Your task to perform on an android device: Open eBay Image 0: 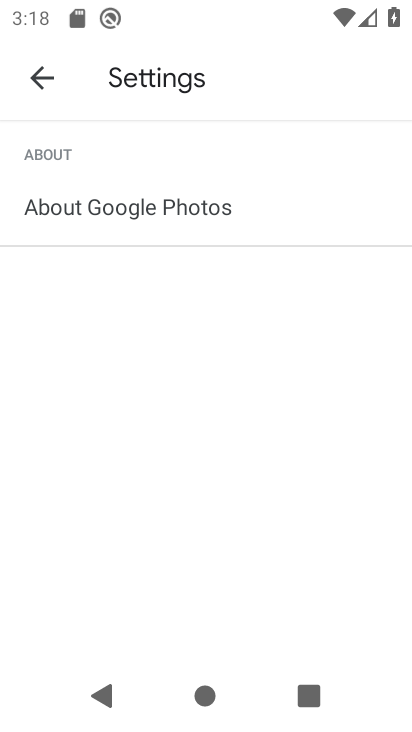
Step 0: press home button
Your task to perform on an android device: Open eBay Image 1: 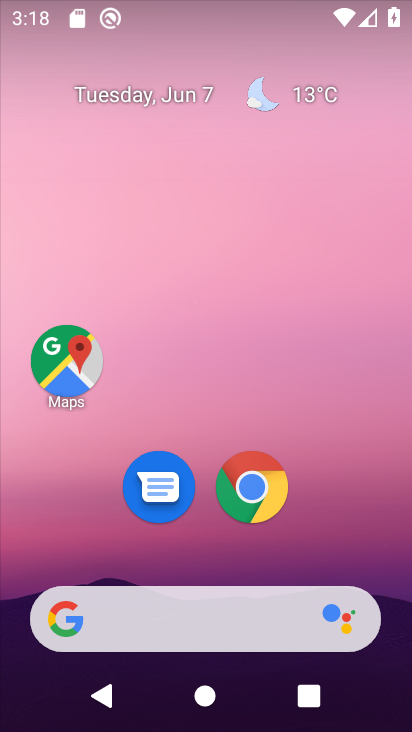
Step 1: drag from (308, 530) to (307, 62)
Your task to perform on an android device: Open eBay Image 2: 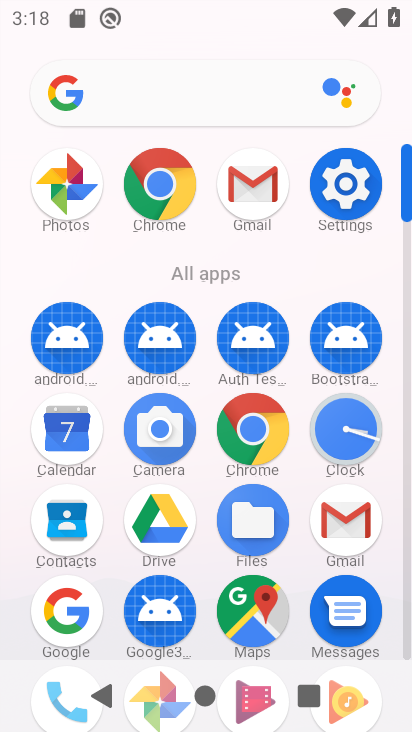
Step 2: click (69, 602)
Your task to perform on an android device: Open eBay Image 3: 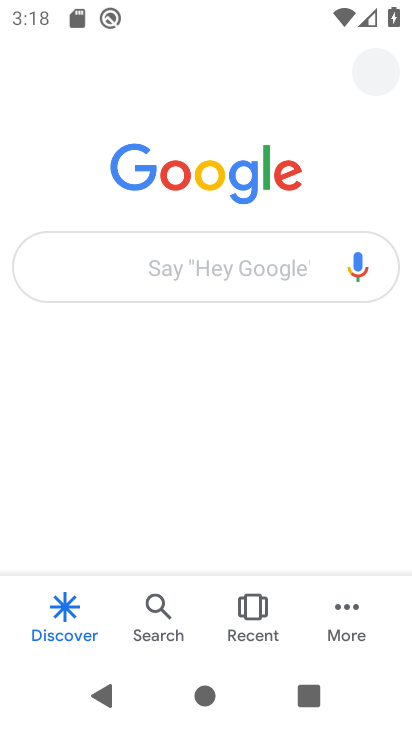
Step 3: click (166, 257)
Your task to perform on an android device: Open eBay Image 4: 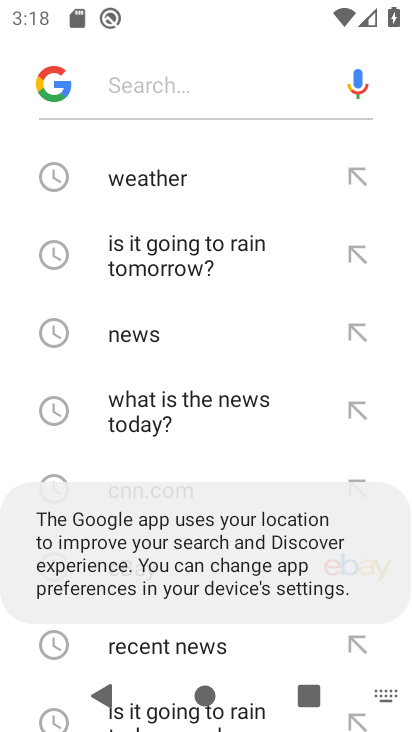
Step 4: drag from (257, 413) to (260, 131)
Your task to perform on an android device: Open eBay Image 5: 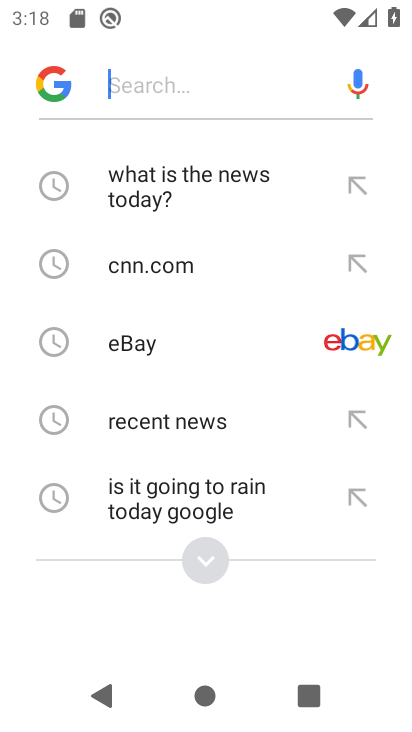
Step 5: click (191, 334)
Your task to perform on an android device: Open eBay Image 6: 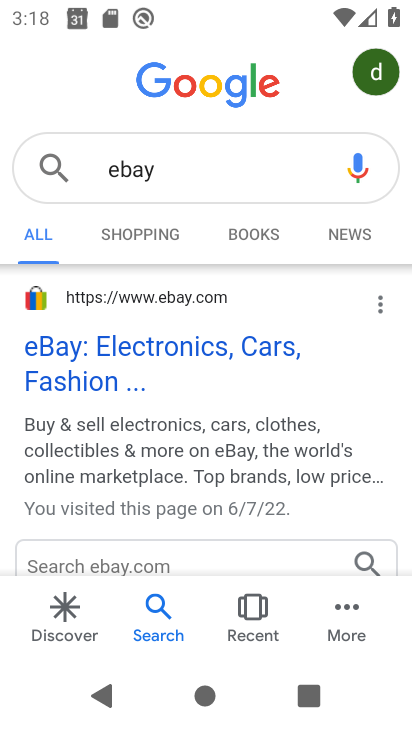
Step 6: click (177, 345)
Your task to perform on an android device: Open eBay Image 7: 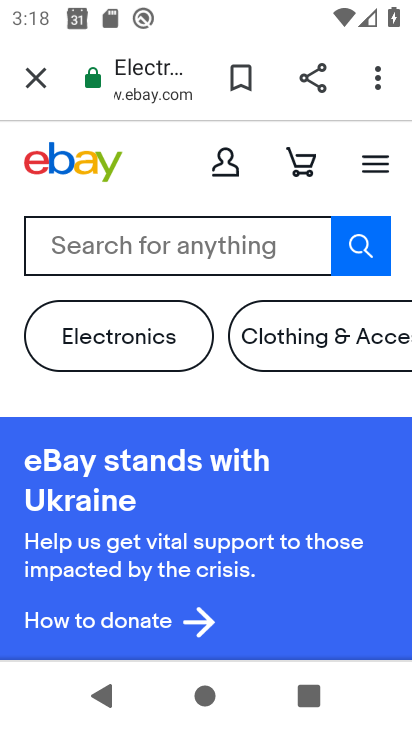
Step 7: task complete